Your task to perform on an android device: change the clock style Image 0: 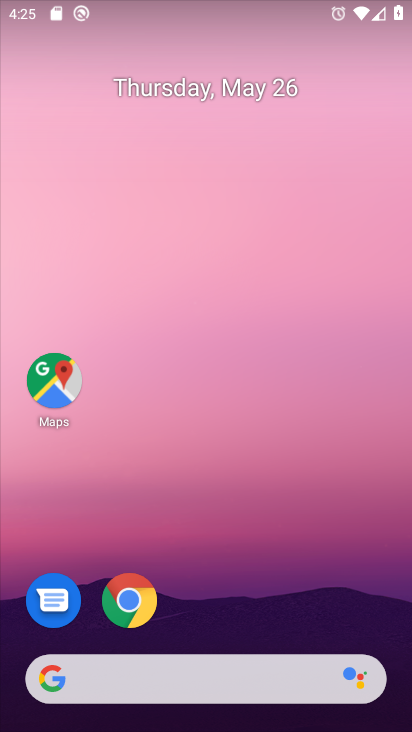
Step 0: drag from (205, 592) to (205, 75)
Your task to perform on an android device: change the clock style Image 1: 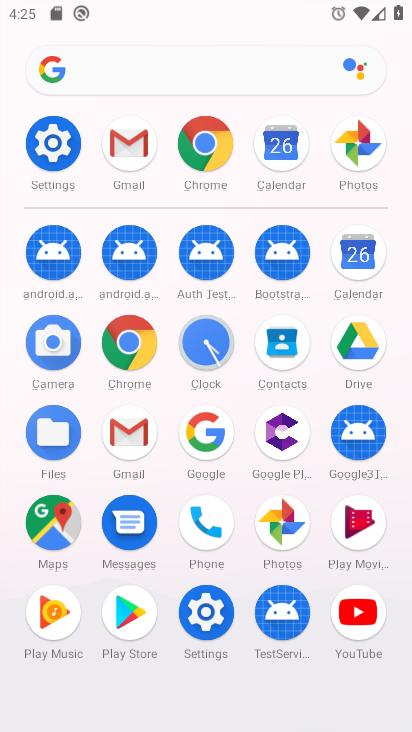
Step 1: click (214, 348)
Your task to perform on an android device: change the clock style Image 2: 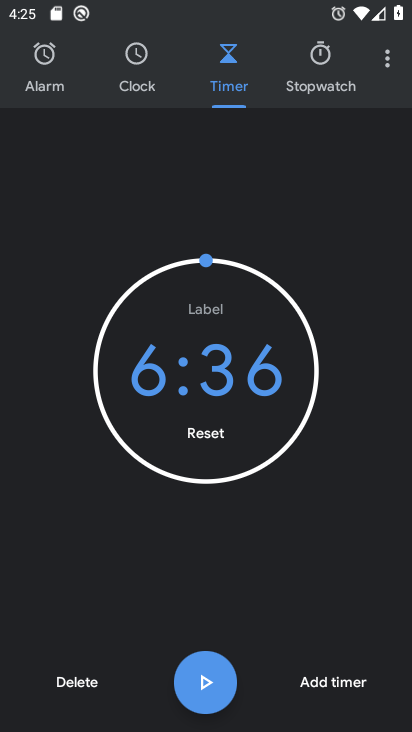
Step 2: click (379, 59)
Your task to perform on an android device: change the clock style Image 3: 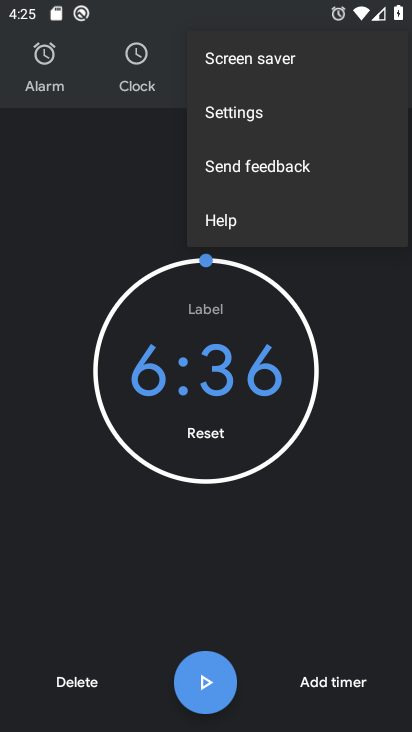
Step 3: click (259, 108)
Your task to perform on an android device: change the clock style Image 4: 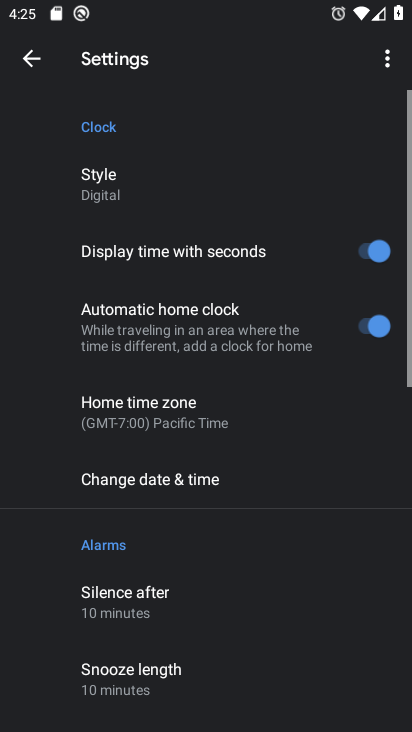
Step 4: click (124, 187)
Your task to perform on an android device: change the clock style Image 5: 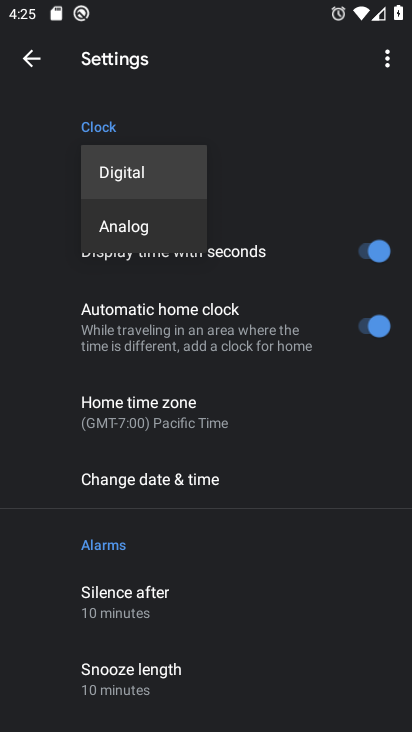
Step 5: click (147, 230)
Your task to perform on an android device: change the clock style Image 6: 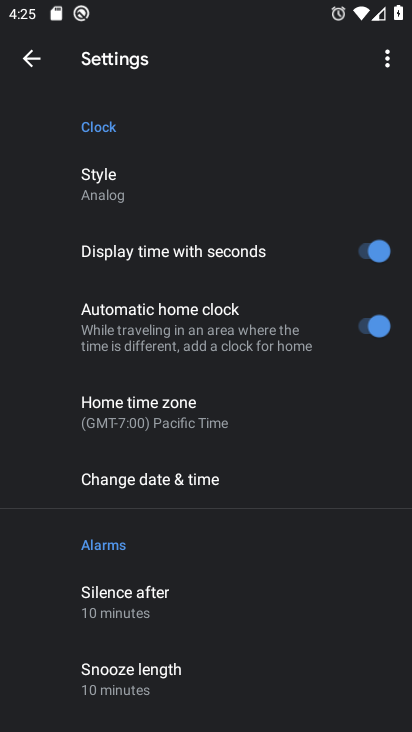
Step 6: task complete